Your task to perform on an android device: change your default location settings in chrome Image 0: 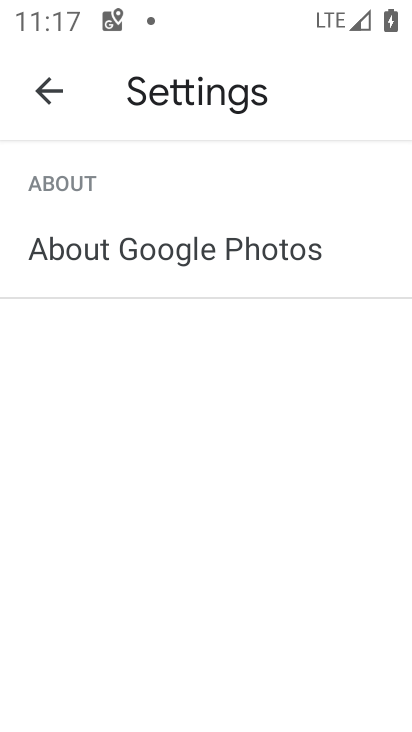
Step 0: press home button
Your task to perform on an android device: change your default location settings in chrome Image 1: 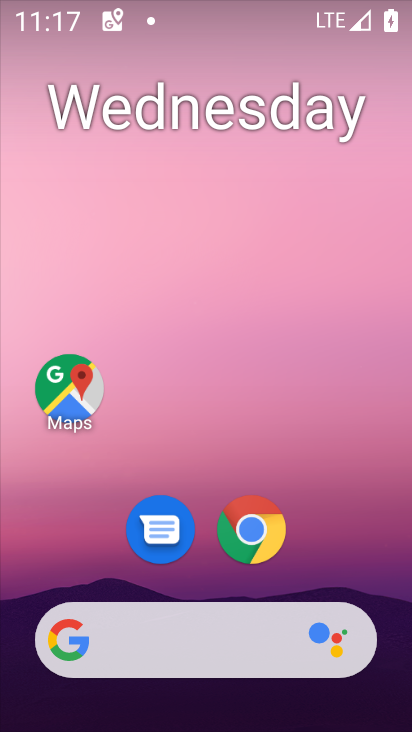
Step 1: click (253, 528)
Your task to perform on an android device: change your default location settings in chrome Image 2: 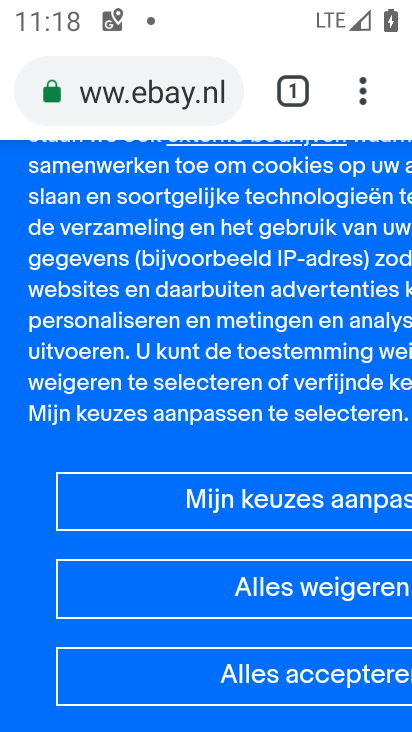
Step 2: click (360, 93)
Your task to perform on an android device: change your default location settings in chrome Image 3: 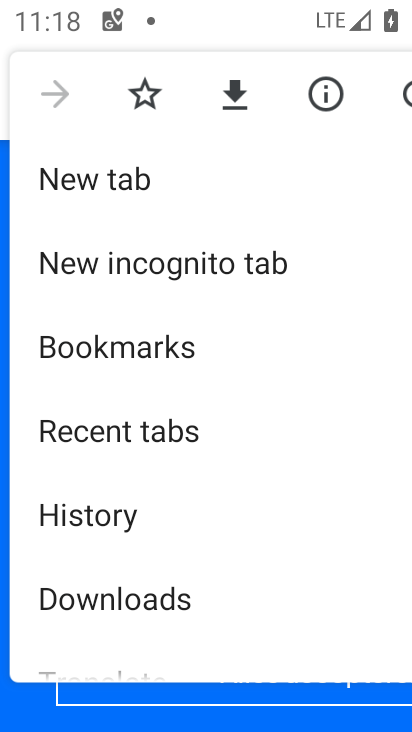
Step 3: drag from (227, 596) to (272, 262)
Your task to perform on an android device: change your default location settings in chrome Image 4: 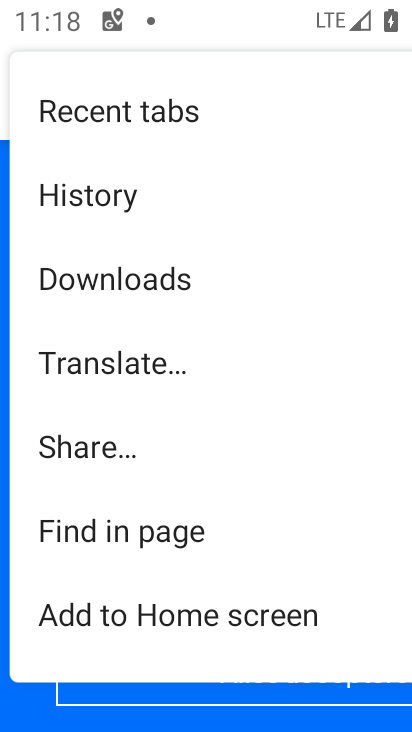
Step 4: drag from (315, 599) to (286, 179)
Your task to perform on an android device: change your default location settings in chrome Image 5: 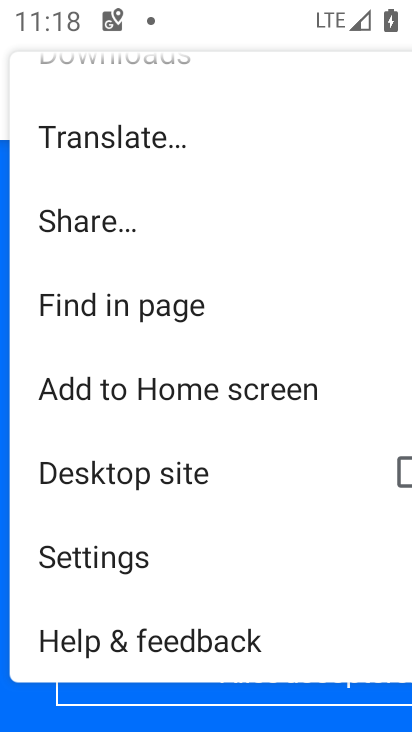
Step 5: click (110, 559)
Your task to perform on an android device: change your default location settings in chrome Image 6: 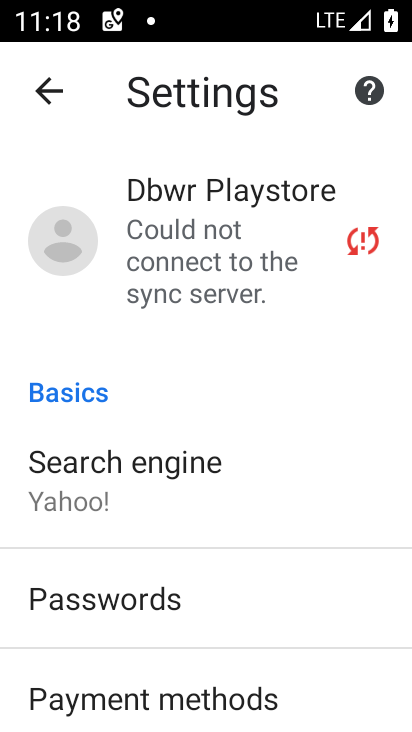
Step 6: drag from (336, 697) to (286, 248)
Your task to perform on an android device: change your default location settings in chrome Image 7: 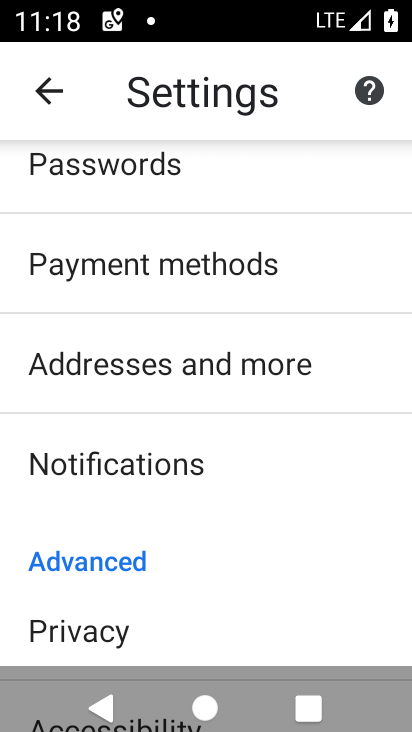
Step 7: drag from (286, 563) to (324, 127)
Your task to perform on an android device: change your default location settings in chrome Image 8: 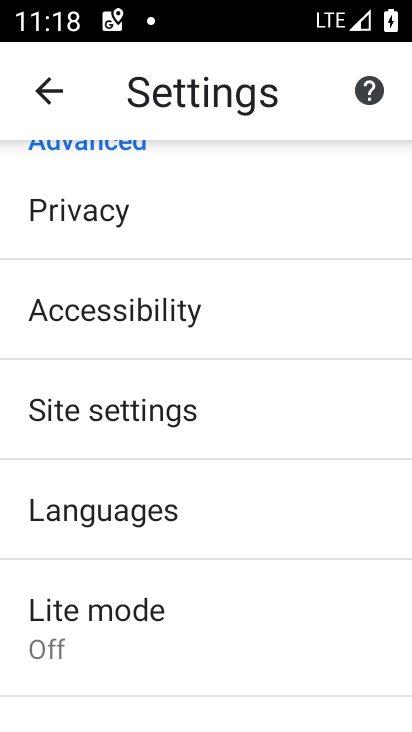
Step 8: click (96, 422)
Your task to perform on an android device: change your default location settings in chrome Image 9: 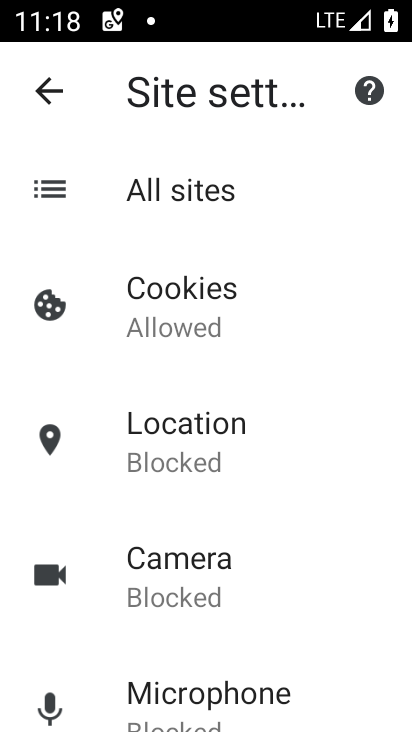
Step 9: click (164, 439)
Your task to perform on an android device: change your default location settings in chrome Image 10: 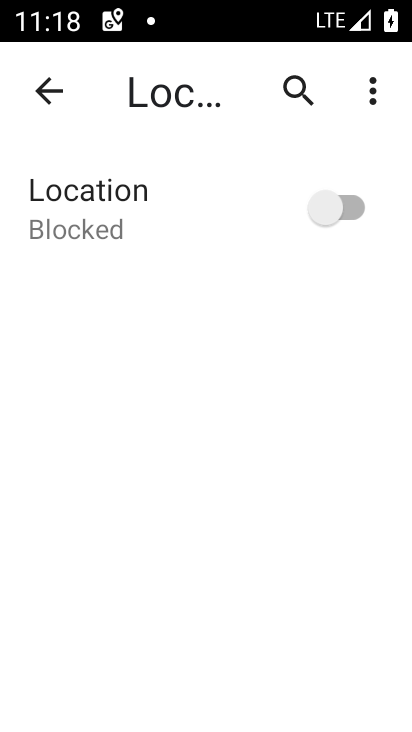
Step 10: click (357, 205)
Your task to perform on an android device: change your default location settings in chrome Image 11: 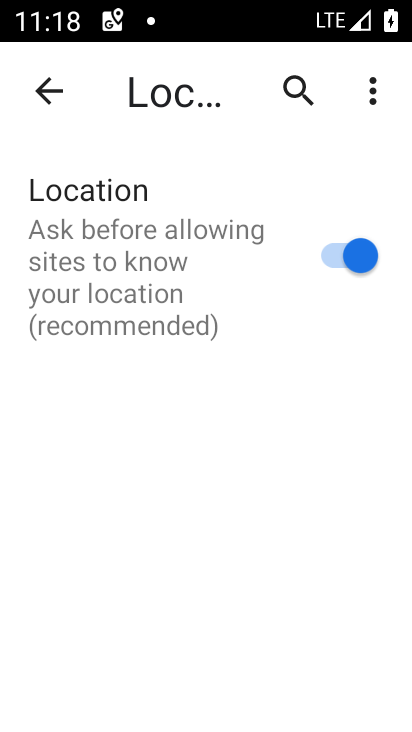
Step 11: task complete